Your task to perform on an android device: Open the phone app and click the voicemail tab. Image 0: 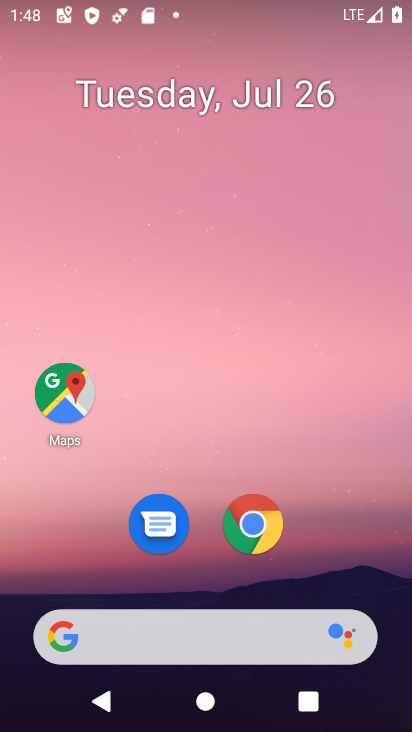
Step 0: drag from (343, 569) to (295, 102)
Your task to perform on an android device: Open the phone app and click the voicemail tab. Image 1: 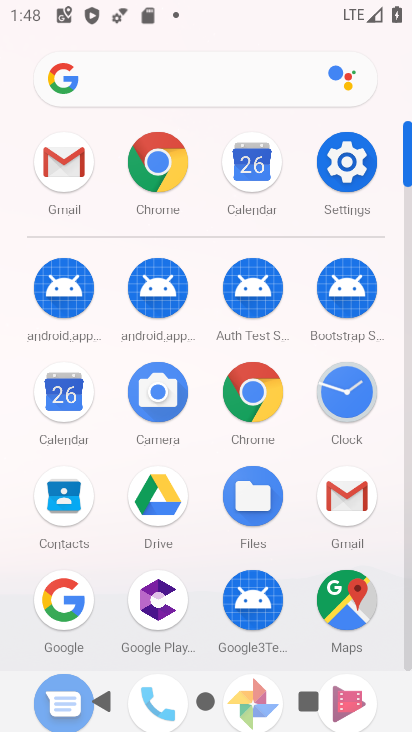
Step 1: drag from (111, 498) to (129, 330)
Your task to perform on an android device: Open the phone app and click the voicemail tab. Image 2: 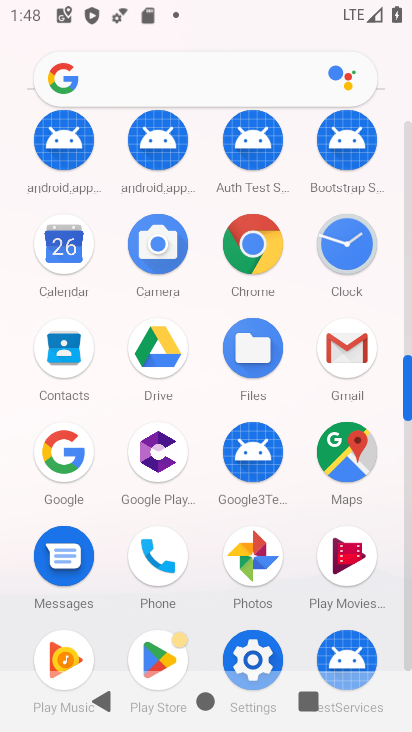
Step 2: click (159, 555)
Your task to perform on an android device: Open the phone app and click the voicemail tab. Image 3: 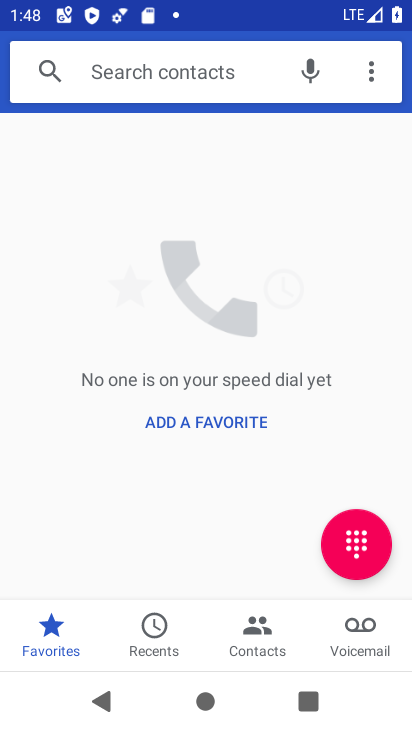
Step 3: click (358, 630)
Your task to perform on an android device: Open the phone app and click the voicemail tab. Image 4: 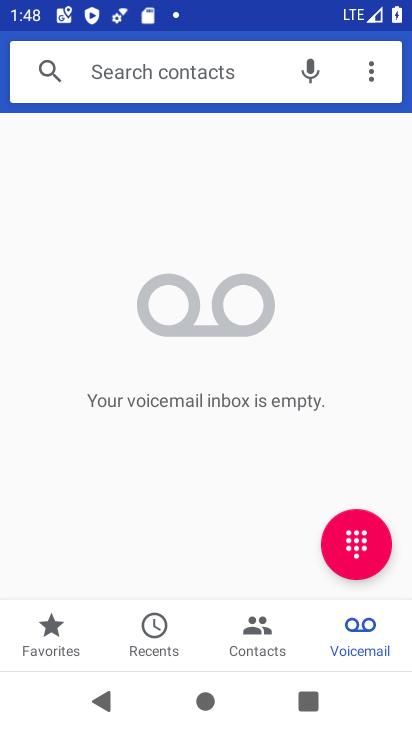
Step 4: task complete